Your task to perform on an android device: What's the weather? Image 0: 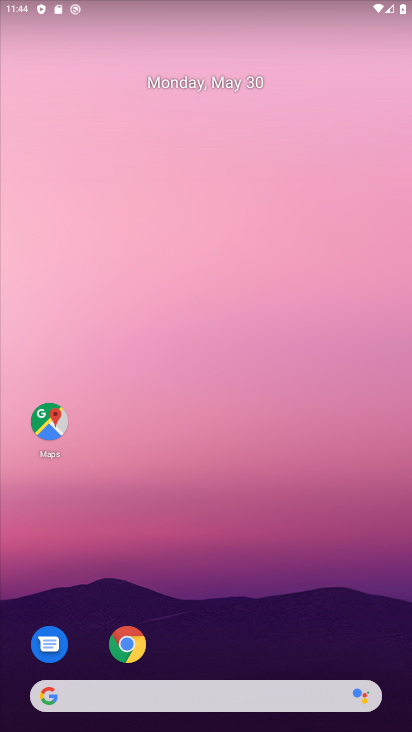
Step 0: drag from (231, 632) to (250, 33)
Your task to perform on an android device: What's the weather? Image 1: 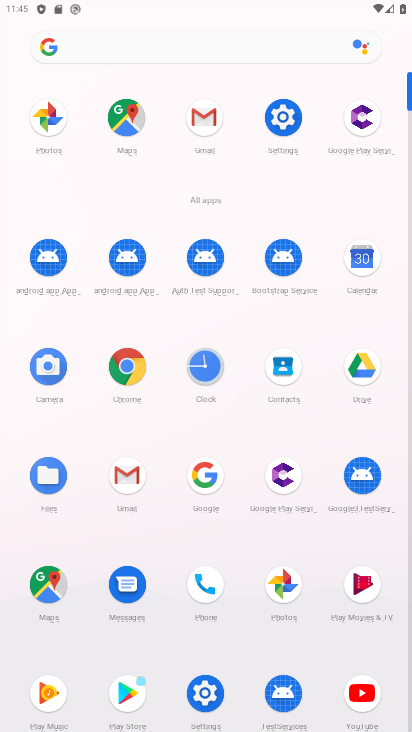
Step 1: click (155, 41)
Your task to perform on an android device: What's the weather? Image 2: 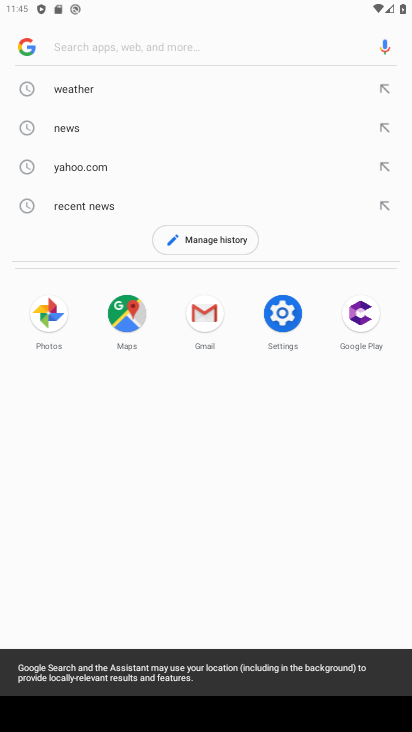
Step 2: click (64, 86)
Your task to perform on an android device: What's the weather? Image 3: 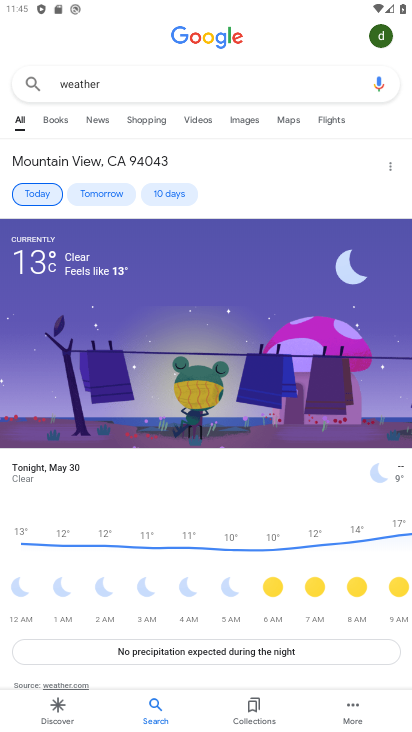
Step 3: task complete